Your task to perform on an android device: Show the shopping cart on walmart. Search for macbook pro 13 inch on walmart, select the first entry, and add it to the cart. Image 0: 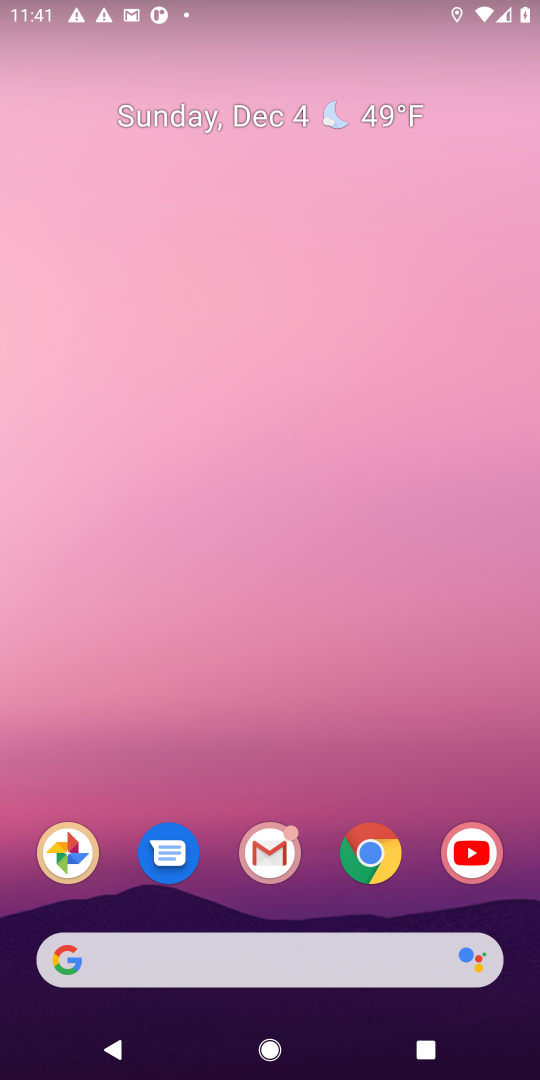
Step 0: click (376, 862)
Your task to perform on an android device: Show the shopping cart on walmart. Search for macbook pro 13 inch on walmart, select the first entry, and add it to the cart. Image 1: 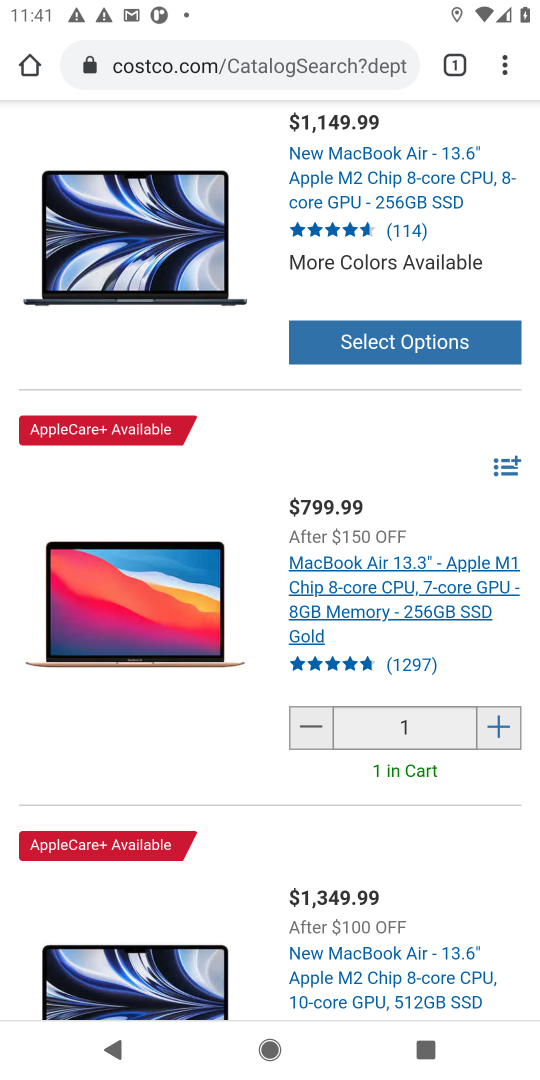
Step 1: click (172, 76)
Your task to perform on an android device: Show the shopping cart on walmart. Search for macbook pro 13 inch on walmart, select the first entry, and add it to the cart. Image 2: 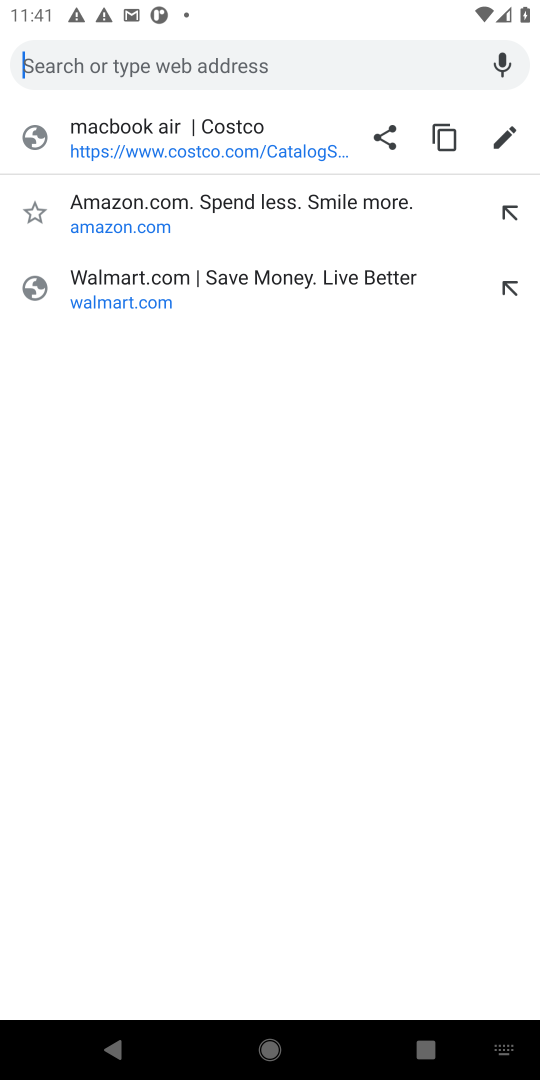
Step 2: click (185, 71)
Your task to perform on an android device: Show the shopping cart on walmart. Search for macbook pro 13 inch on walmart, select the first entry, and add it to the cart. Image 3: 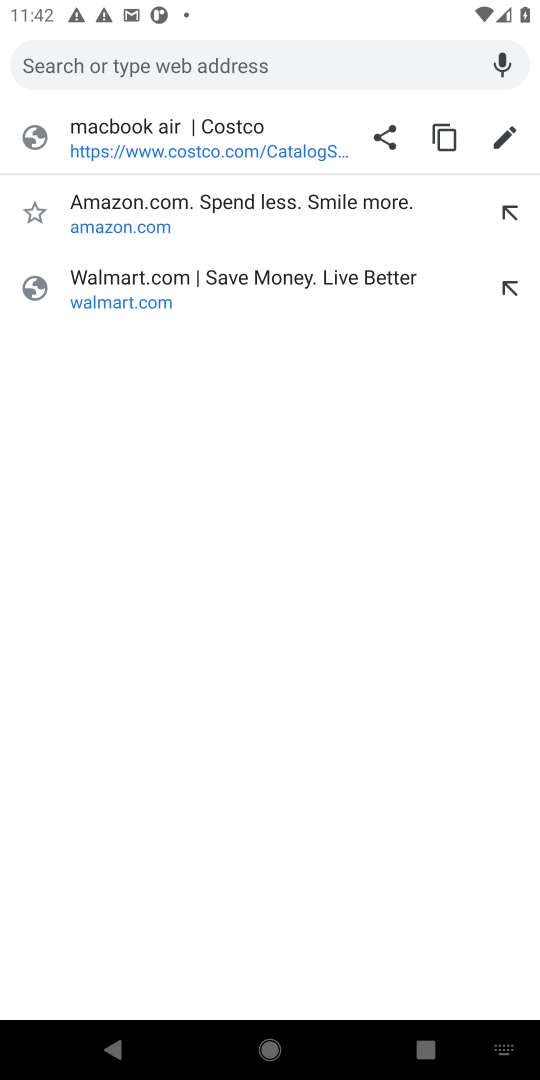
Step 3: click (108, 292)
Your task to perform on an android device: Show the shopping cart on walmart. Search for macbook pro 13 inch on walmart, select the first entry, and add it to the cart. Image 4: 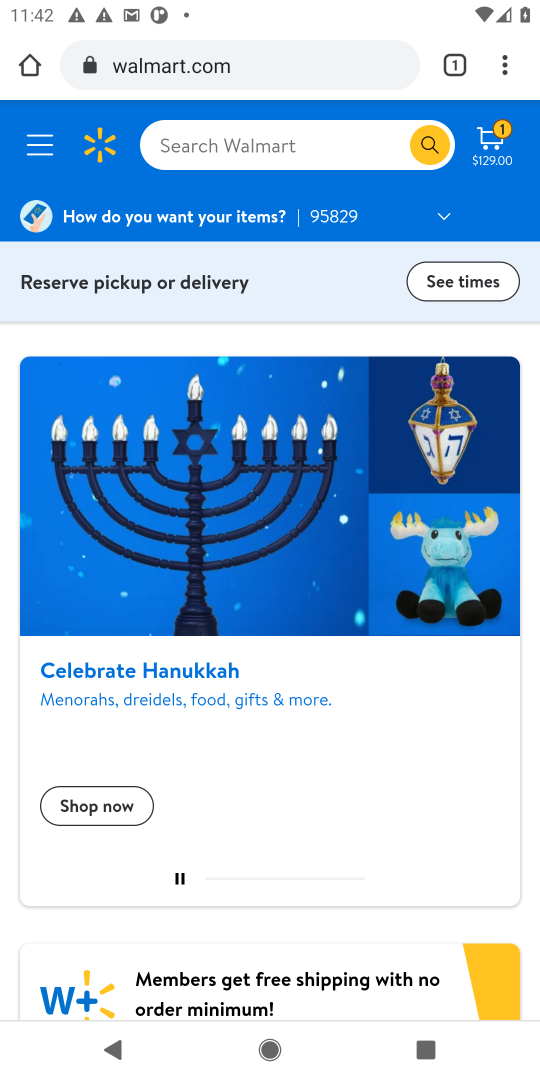
Step 4: click (498, 134)
Your task to perform on an android device: Show the shopping cart on walmart. Search for macbook pro 13 inch on walmart, select the first entry, and add it to the cart. Image 5: 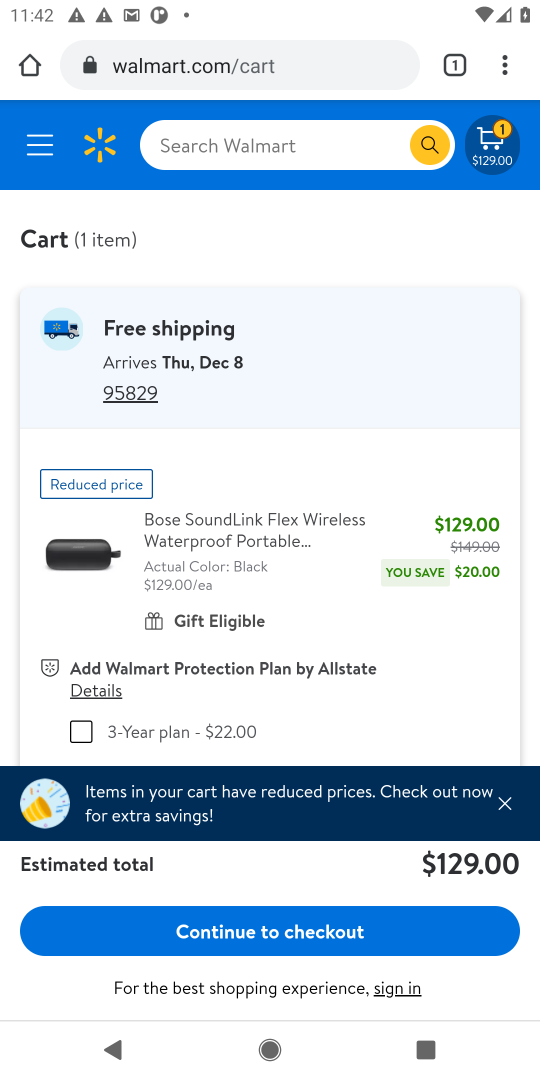
Step 5: click (278, 156)
Your task to perform on an android device: Show the shopping cart on walmart. Search for macbook pro 13 inch on walmart, select the first entry, and add it to the cart. Image 6: 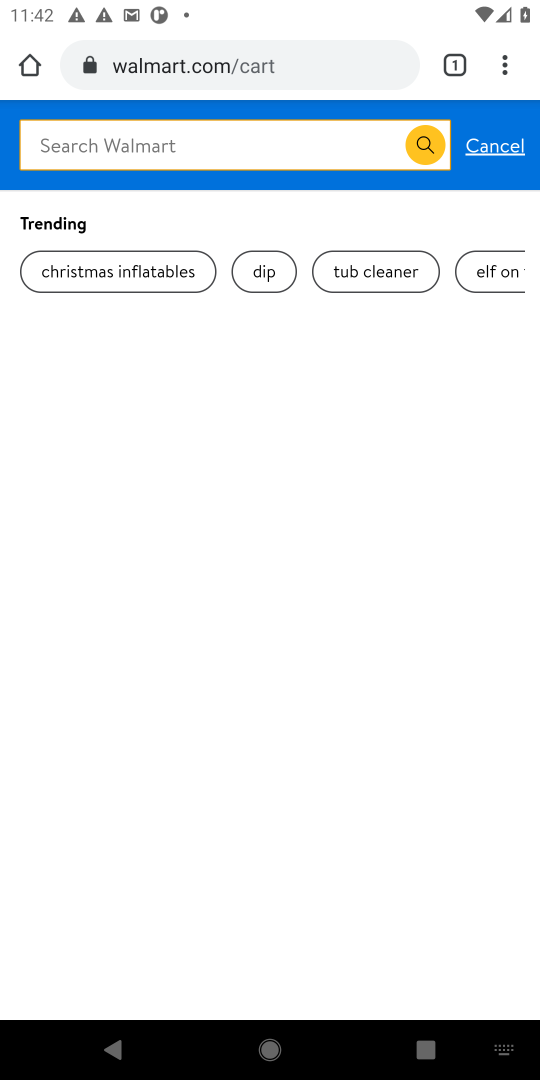
Step 6: type " macbook pro 13 inch"
Your task to perform on an android device: Show the shopping cart on walmart. Search for macbook pro 13 inch on walmart, select the first entry, and add it to the cart. Image 7: 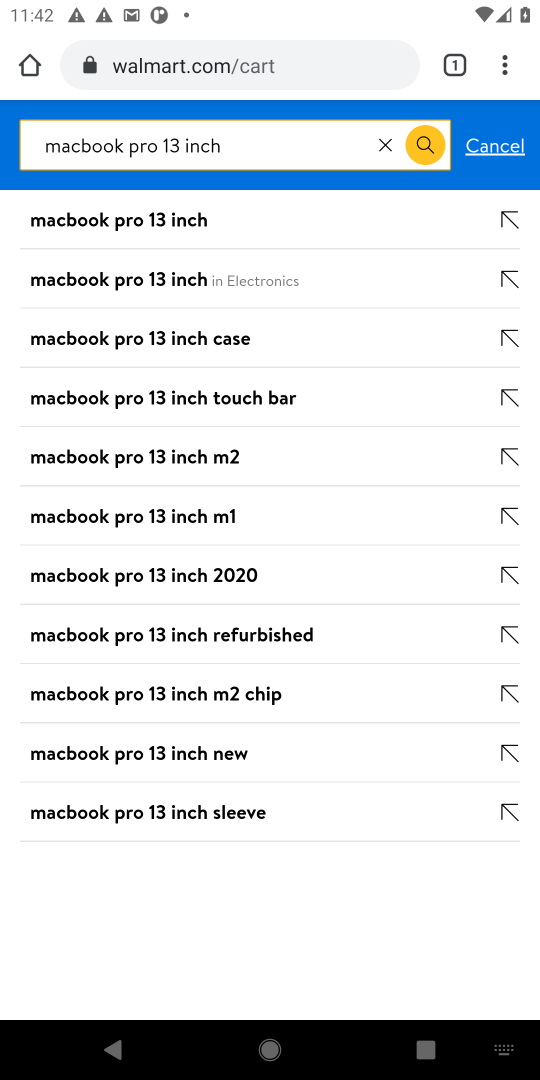
Step 7: click (326, 209)
Your task to perform on an android device: Show the shopping cart on walmart. Search for macbook pro 13 inch on walmart, select the first entry, and add it to the cart. Image 8: 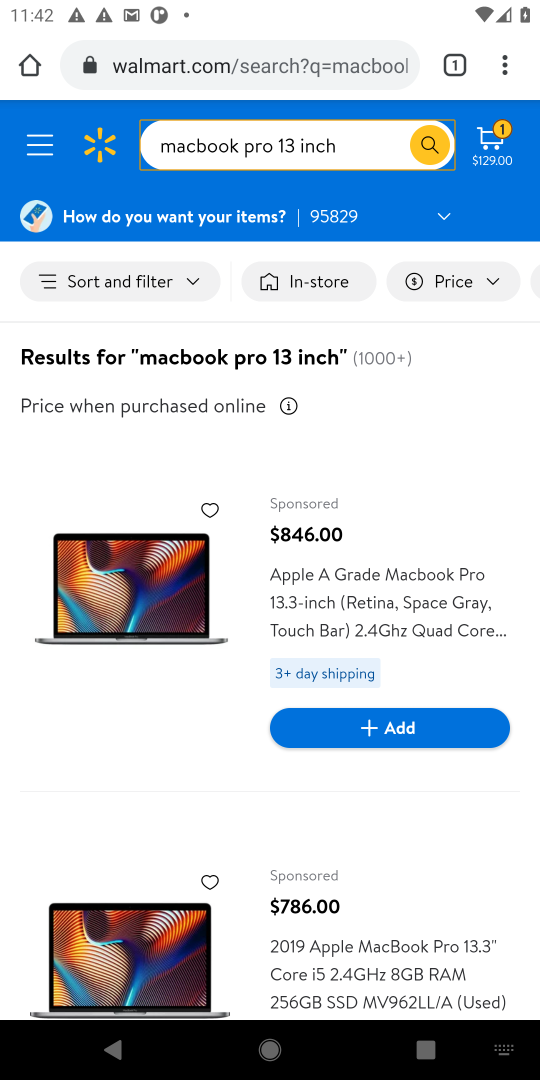
Step 8: click (399, 741)
Your task to perform on an android device: Show the shopping cart on walmart. Search for macbook pro 13 inch on walmart, select the first entry, and add it to the cart. Image 9: 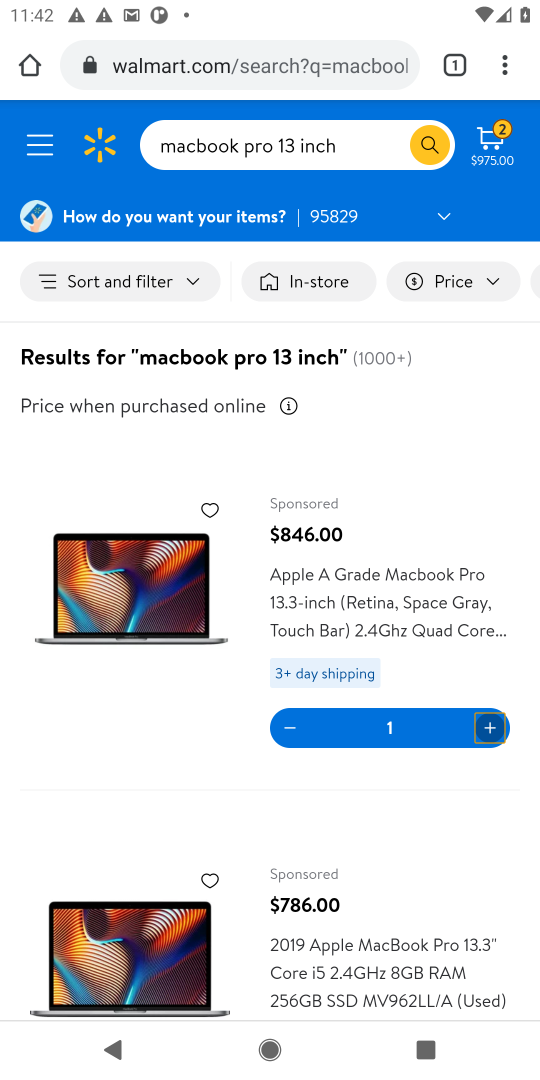
Step 9: task complete